Your task to perform on an android device: turn on showing notifications on the lock screen Image 0: 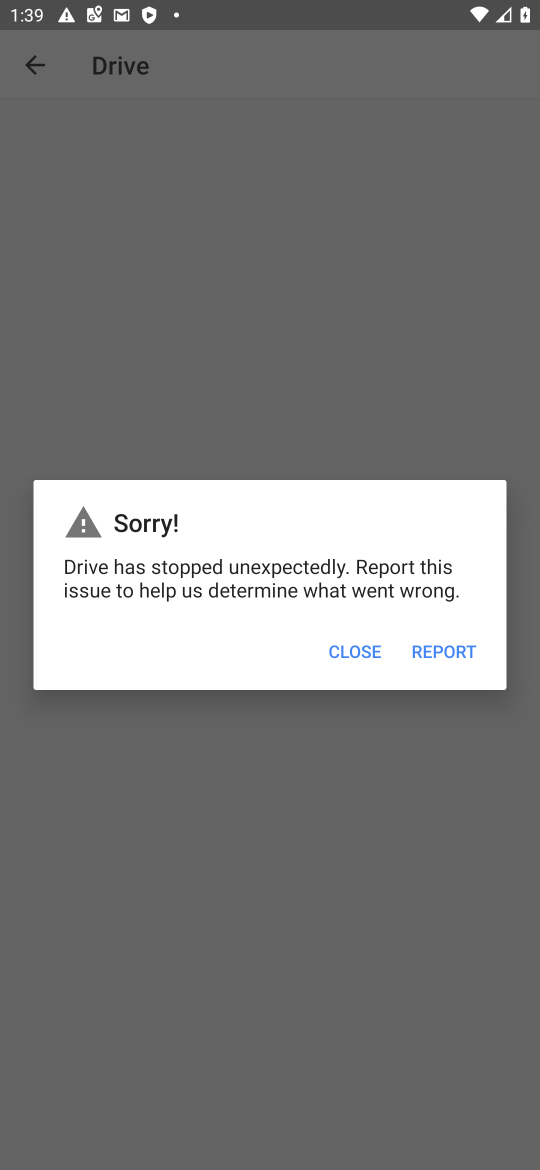
Step 0: press home button
Your task to perform on an android device: turn on showing notifications on the lock screen Image 1: 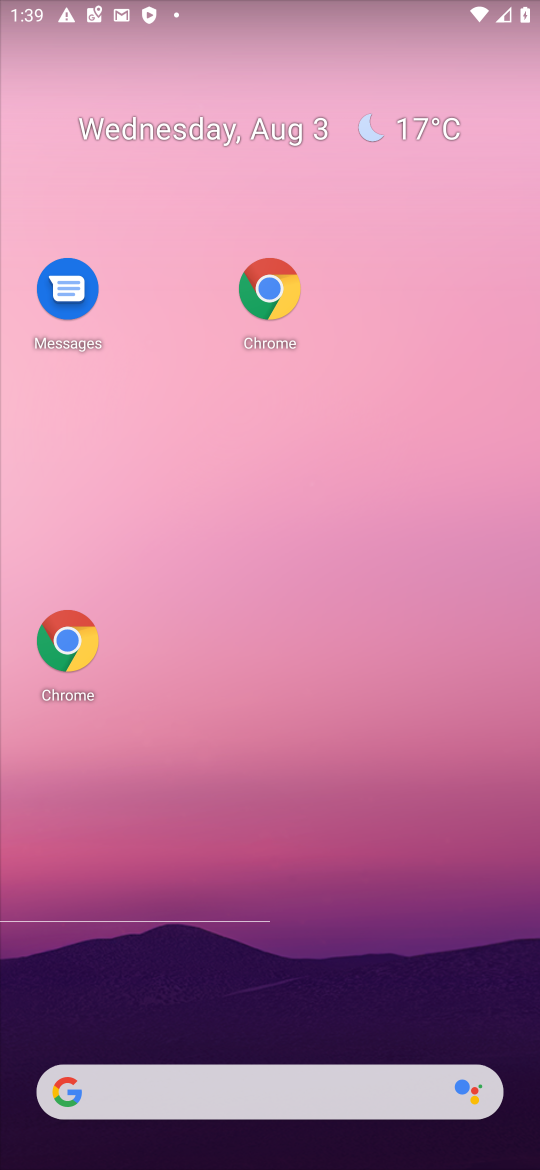
Step 1: drag from (396, 982) to (277, 116)
Your task to perform on an android device: turn on showing notifications on the lock screen Image 2: 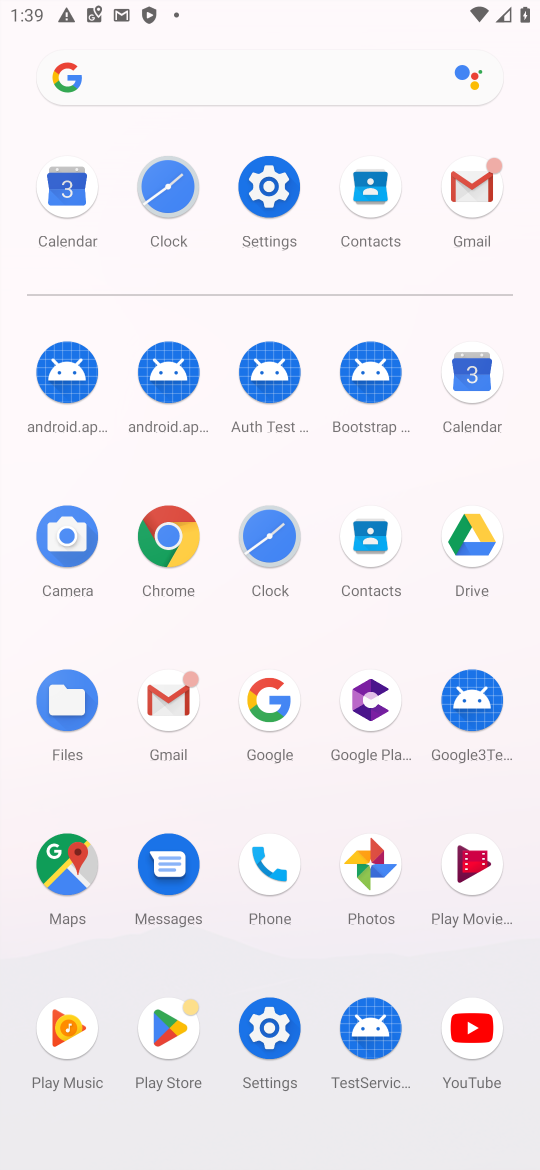
Step 2: click (272, 220)
Your task to perform on an android device: turn on showing notifications on the lock screen Image 3: 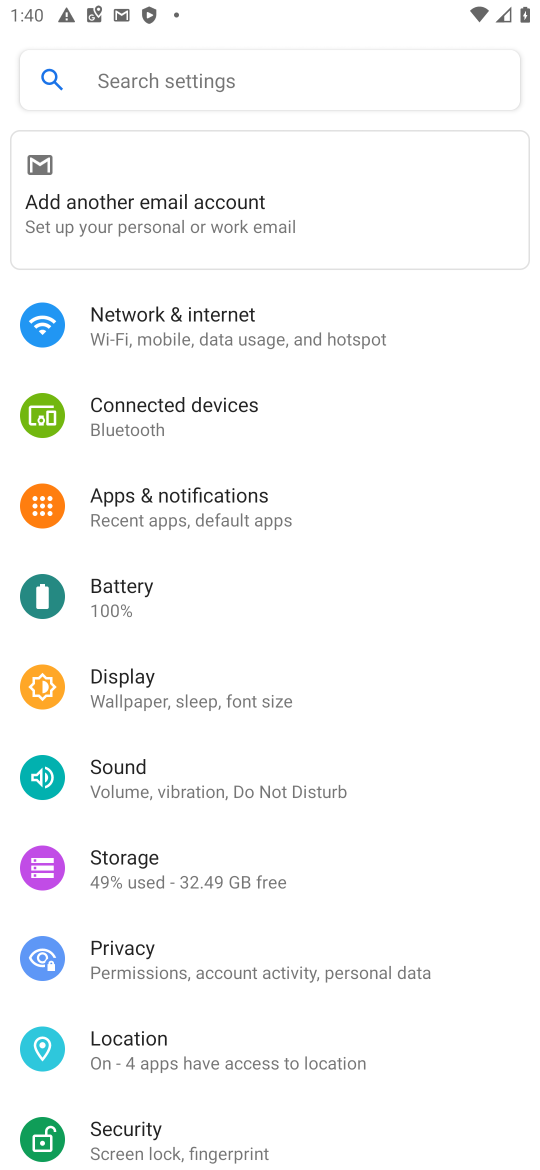
Step 3: click (272, 474)
Your task to perform on an android device: turn on showing notifications on the lock screen Image 4: 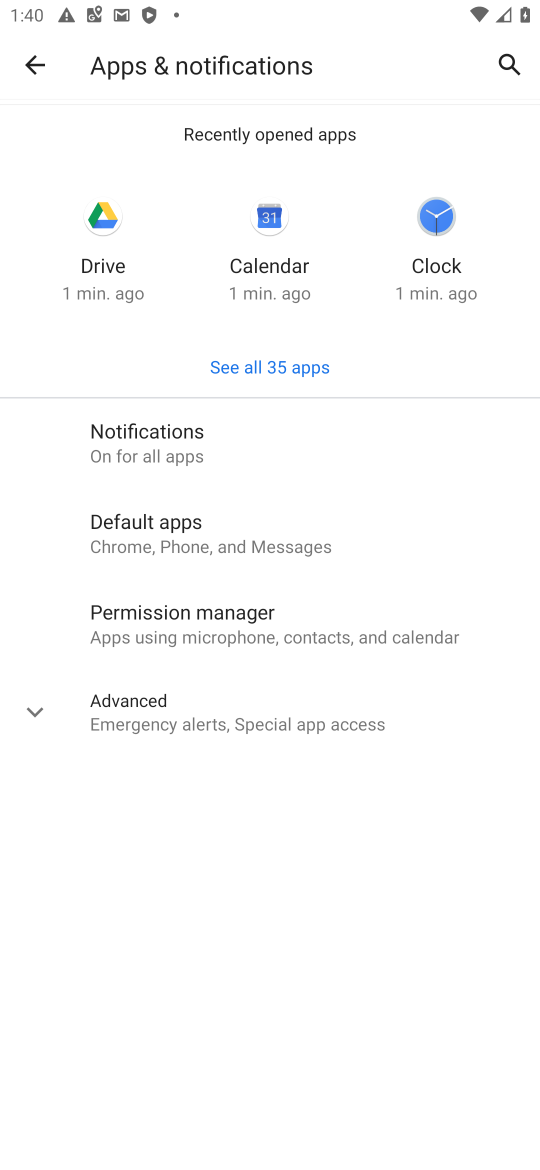
Step 4: click (221, 697)
Your task to perform on an android device: turn on showing notifications on the lock screen Image 5: 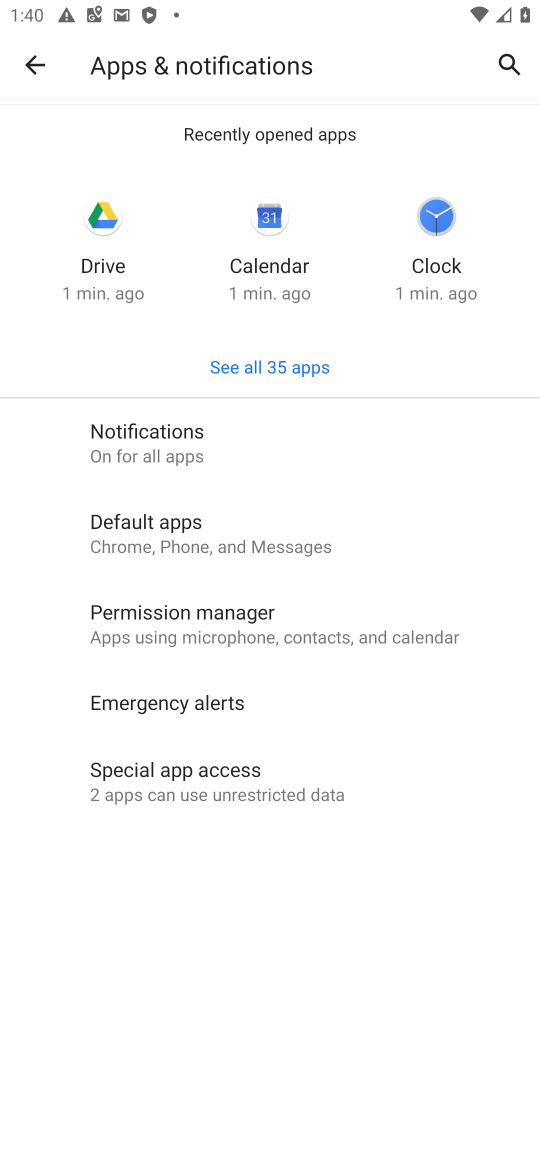
Step 5: click (159, 465)
Your task to perform on an android device: turn on showing notifications on the lock screen Image 6: 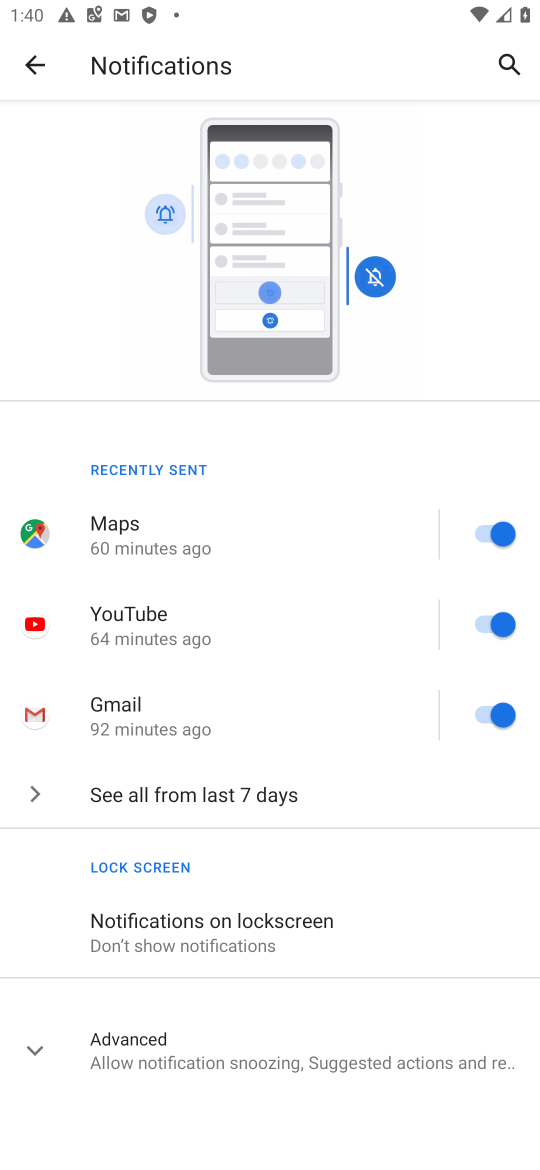
Step 6: click (349, 929)
Your task to perform on an android device: turn on showing notifications on the lock screen Image 7: 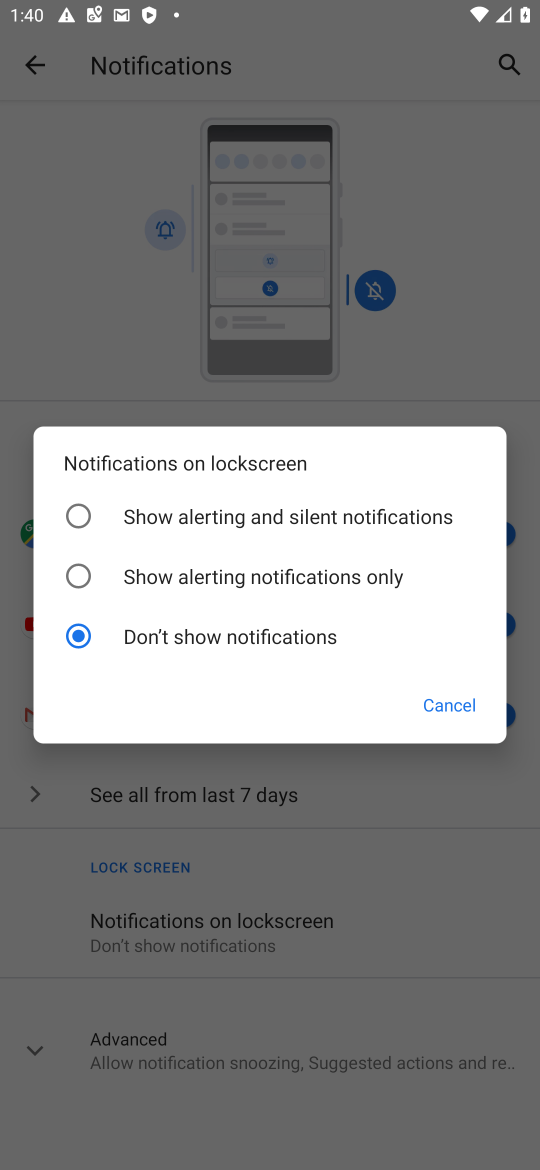
Step 7: task complete